Your task to perform on an android device: change your default location settings in chrome Image 0: 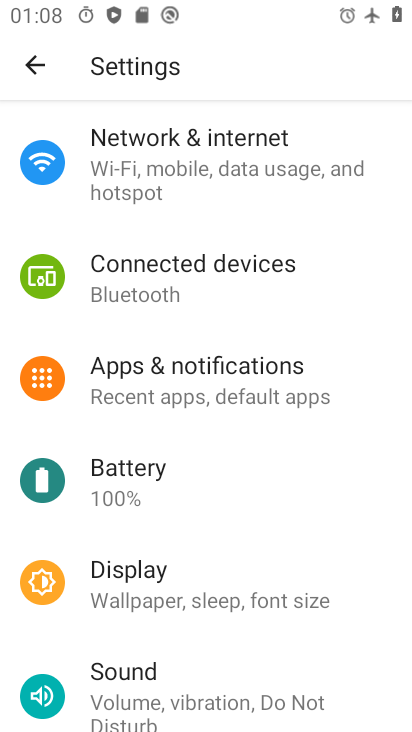
Step 0: press home button
Your task to perform on an android device: change your default location settings in chrome Image 1: 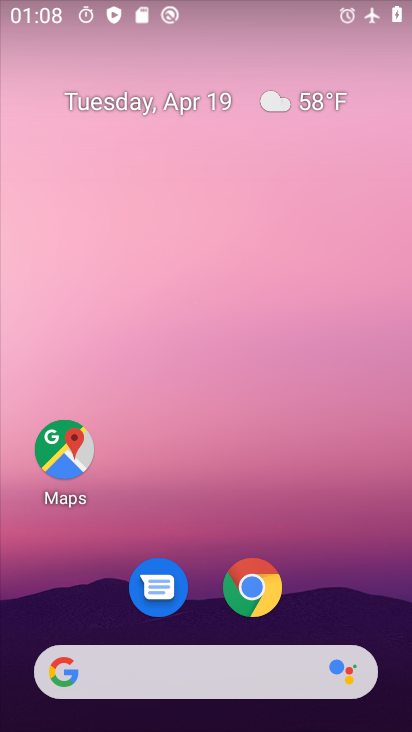
Step 1: click (264, 599)
Your task to perform on an android device: change your default location settings in chrome Image 2: 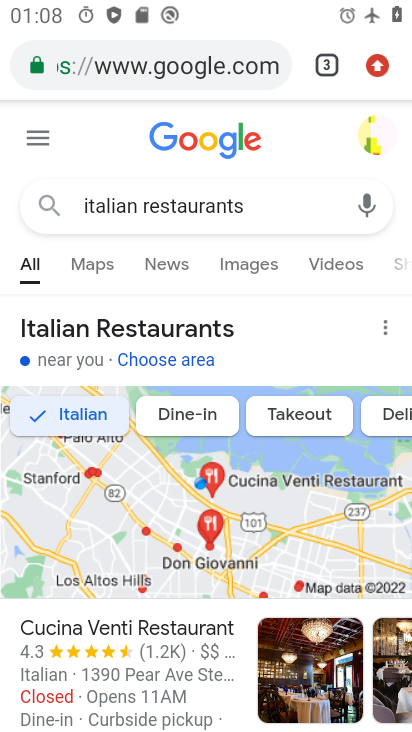
Step 2: click (372, 80)
Your task to perform on an android device: change your default location settings in chrome Image 3: 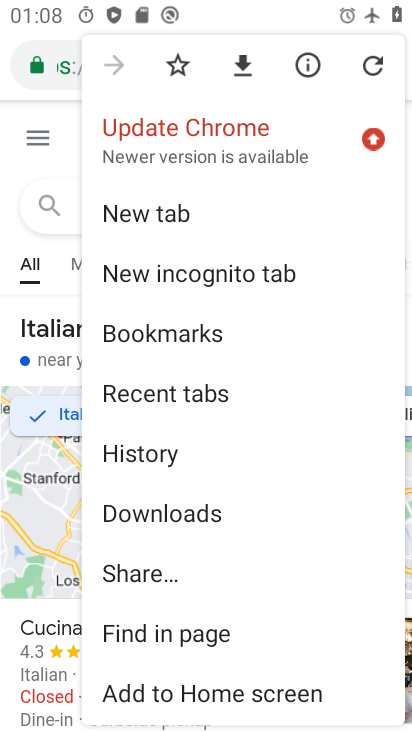
Step 3: drag from (259, 600) to (286, 285)
Your task to perform on an android device: change your default location settings in chrome Image 4: 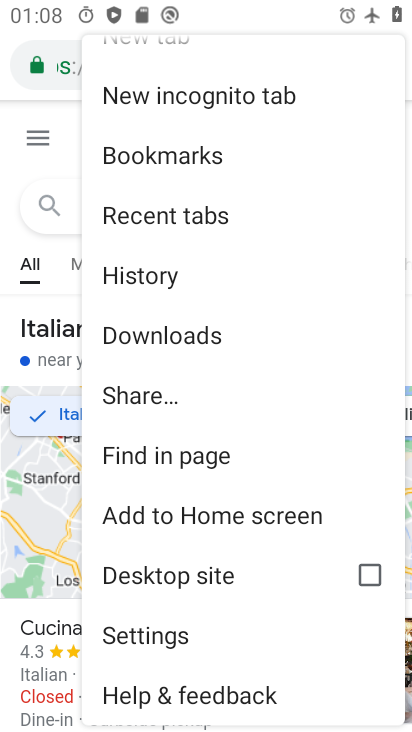
Step 4: click (182, 628)
Your task to perform on an android device: change your default location settings in chrome Image 5: 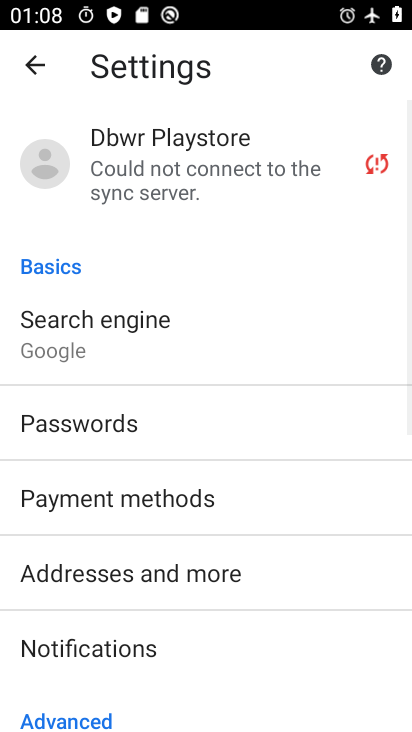
Step 5: drag from (290, 585) to (310, 276)
Your task to perform on an android device: change your default location settings in chrome Image 6: 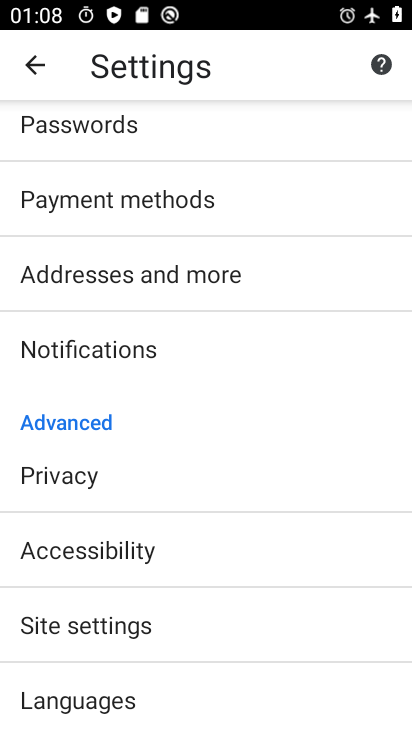
Step 6: click (201, 624)
Your task to perform on an android device: change your default location settings in chrome Image 7: 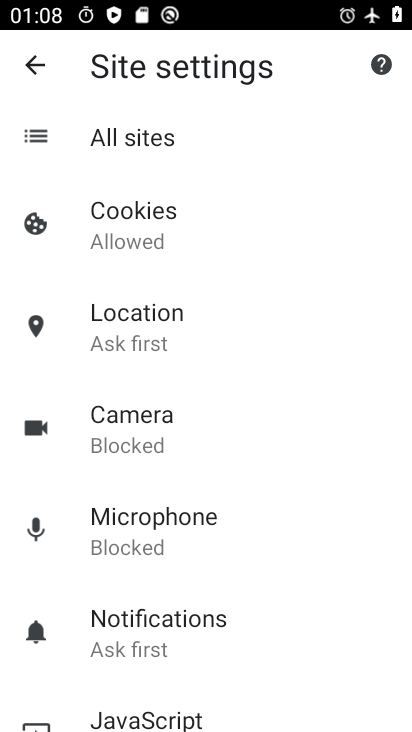
Step 7: drag from (287, 658) to (314, 312)
Your task to perform on an android device: change your default location settings in chrome Image 8: 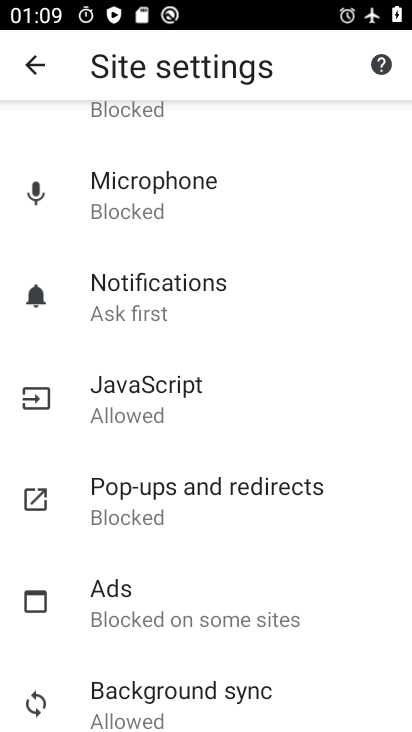
Step 8: drag from (316, 215) to (318, 588)
Your task to perform on an android device: change your default location settings in chrome Image 9: 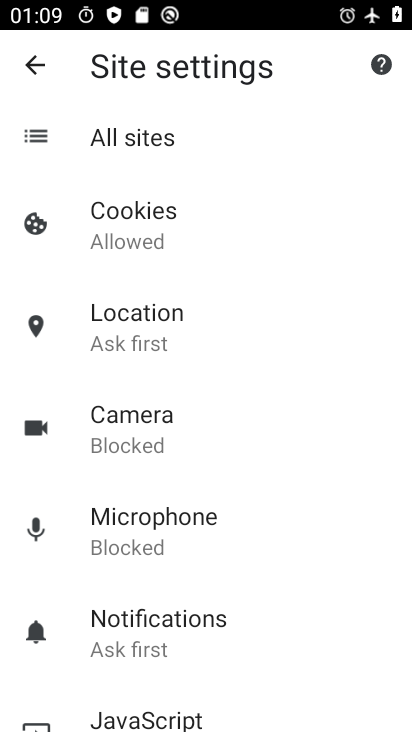
Step 9: click (161, 322)
Your task to perform on an android device: change your default location settings in chrome Image 10: 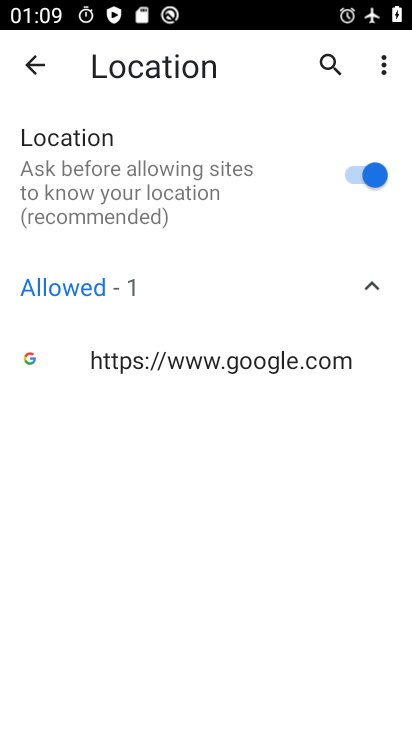
Step 10: click (344, 172)
Your task to perform on an android device: change your default location settings in chrome Image 11: 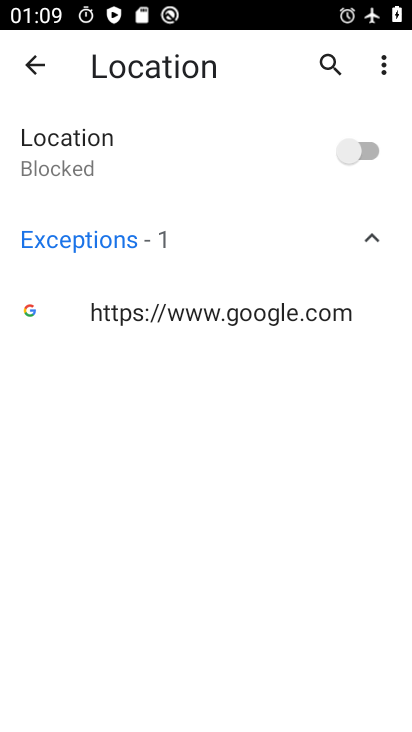
Step 11: task complete